Your task to perform on an android device: see sites visited before in the chrome app Image 0: 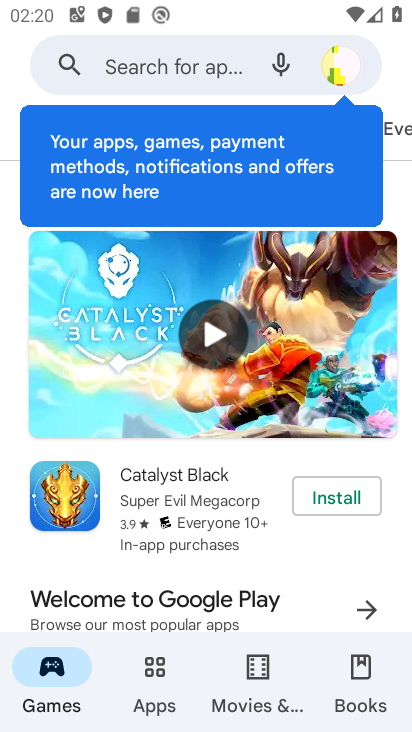
Step 0: press home button
Your task to perform on an android device: see sites visited before in the chrome app Image 1: 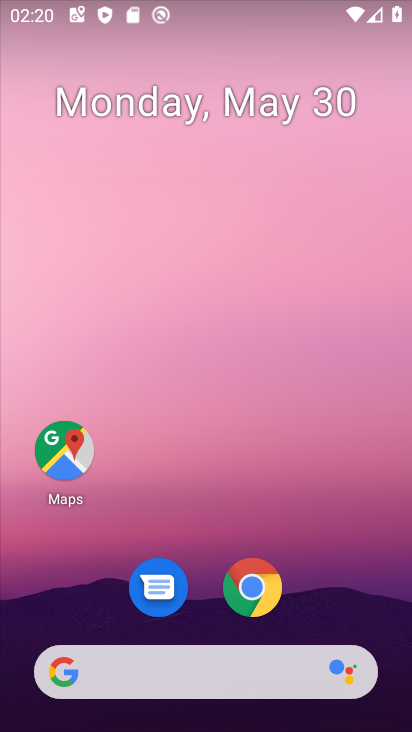
Step 1: click (260, 595)
Your task to perform on an android device: see sites visited before in the chrome app Image 2: 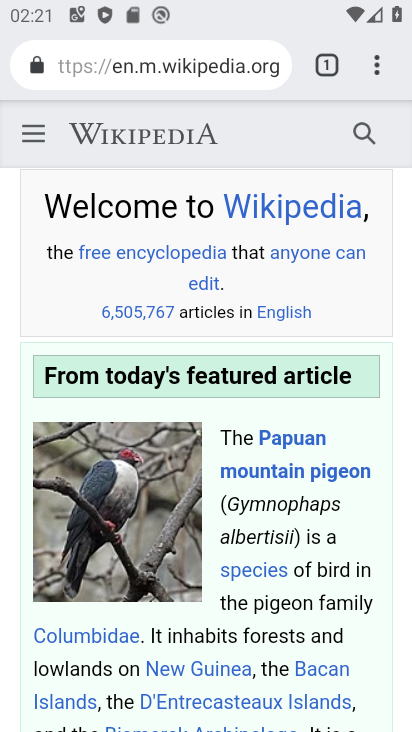
Step 2: click (376, 72)
Your task to perform on an android device: see sites visited before in the chrome app Image 3: 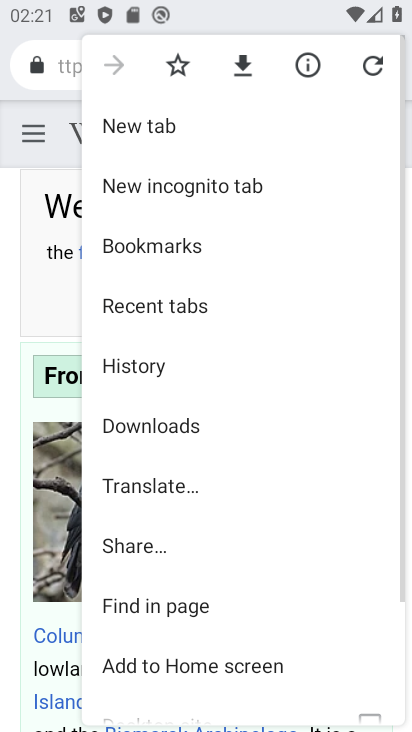
Step 3: click (150, 378)
Your task to perform on an android device: see sites visited before in the chrome app Image 4: 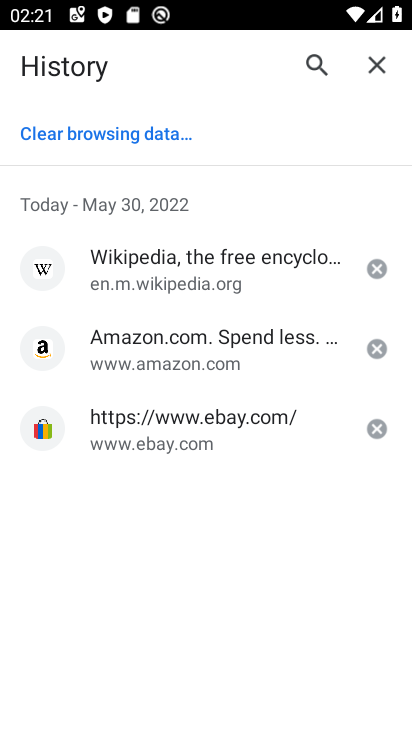
Step 4: task complete